Your task to perform on an android device: see tabs open on other devices in the chrome app Image 0: 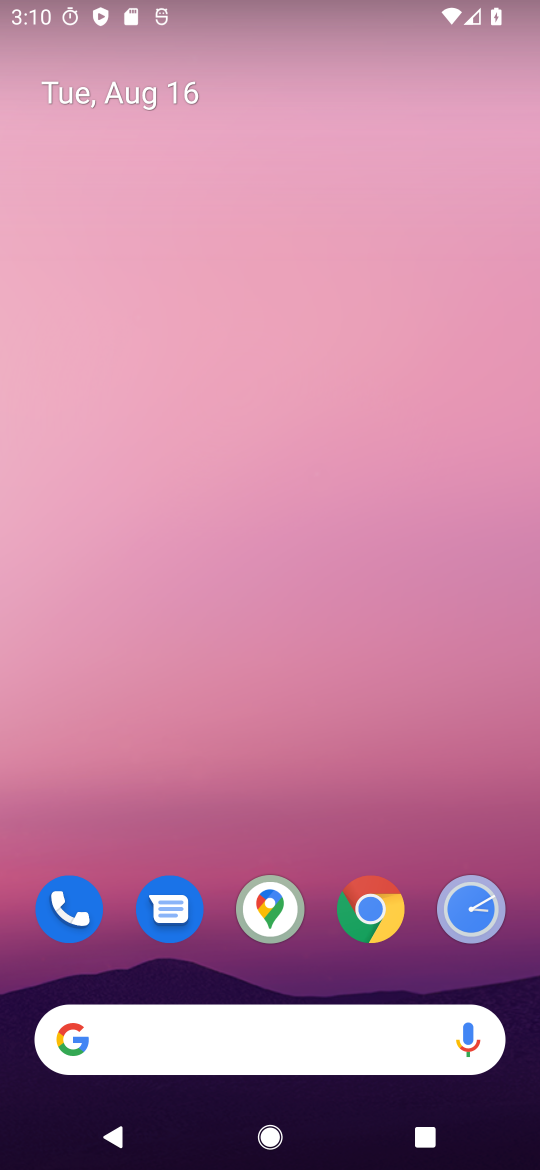
Step 0: click (359, 916)
Your task to perform on an android device: see tabs open on other devices in the chrome app Image 1: 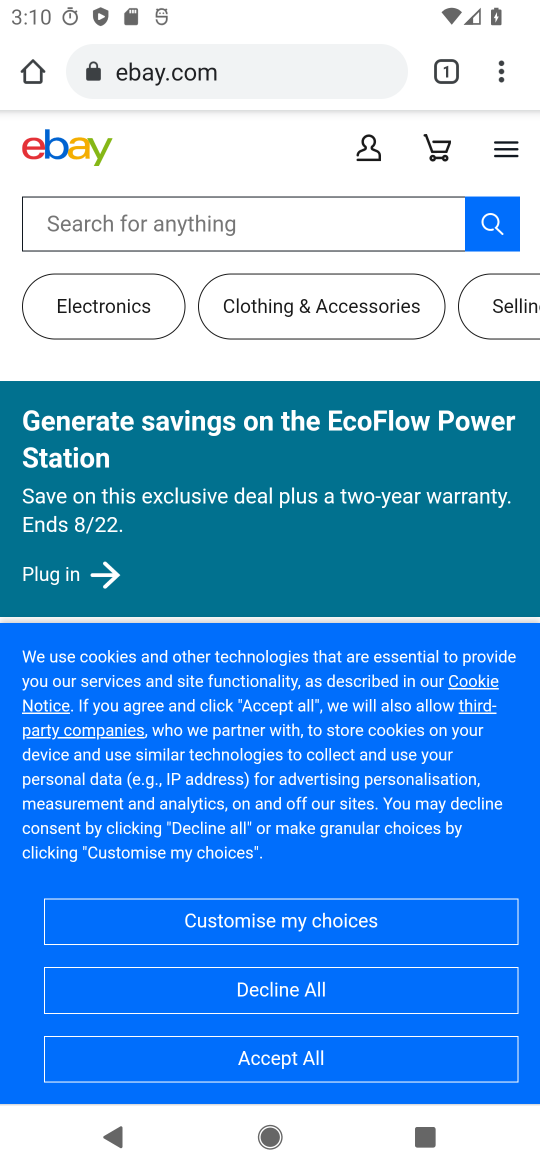
Step 1: click (501, 75)
Your task to perform on an android device: see tabs open on other devices in the chrome app Image 2: 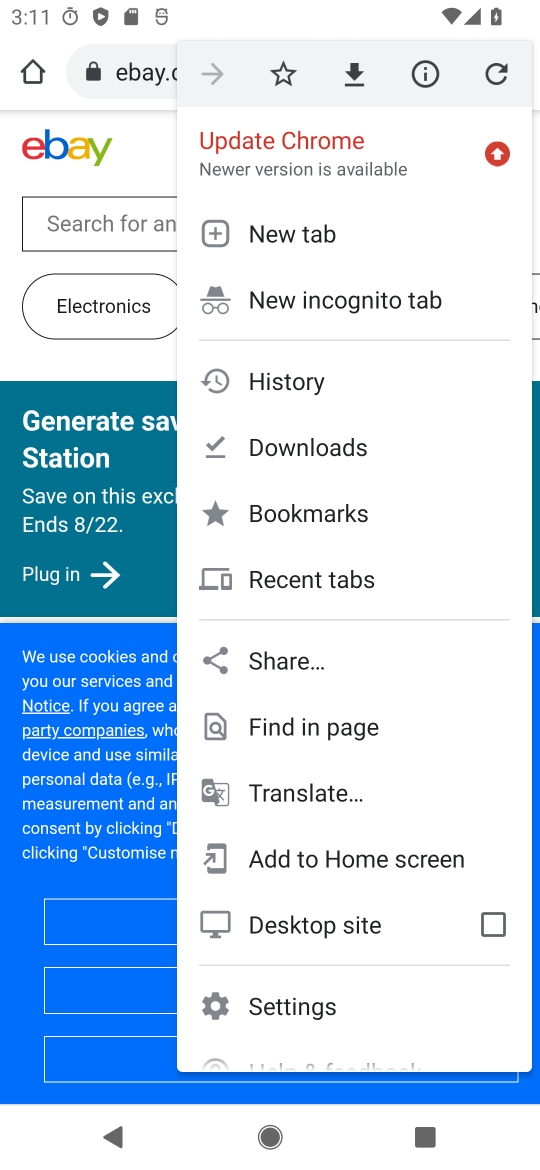
Step 2: click (330, 575)
Your task to perform on an android device: see tabs open on other devices in the chrome app Image 3: 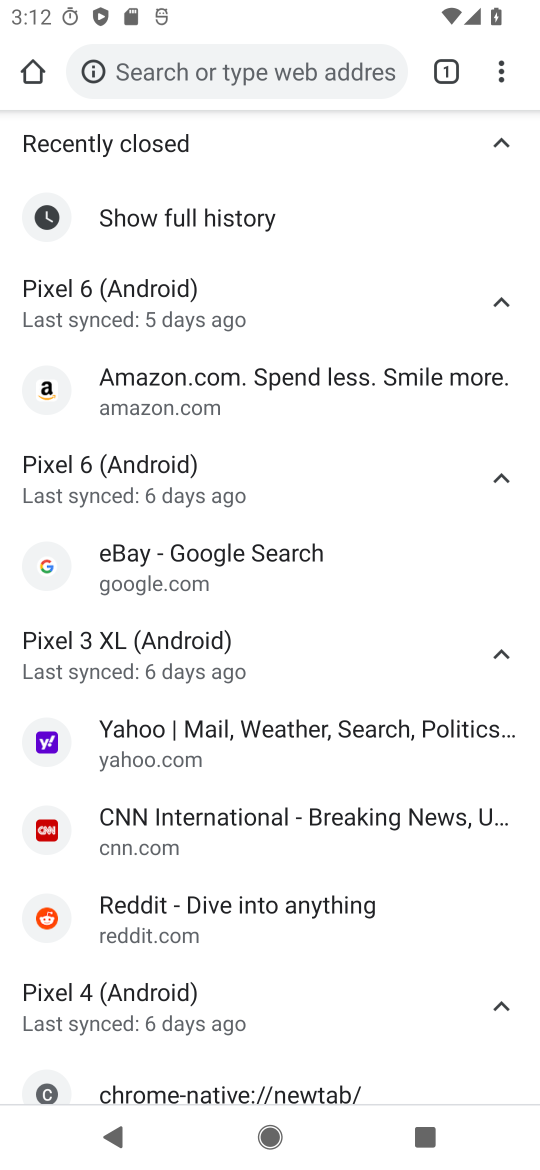
Step 3: task complete